Your task to perform on an android device: toggle location history Image 0: 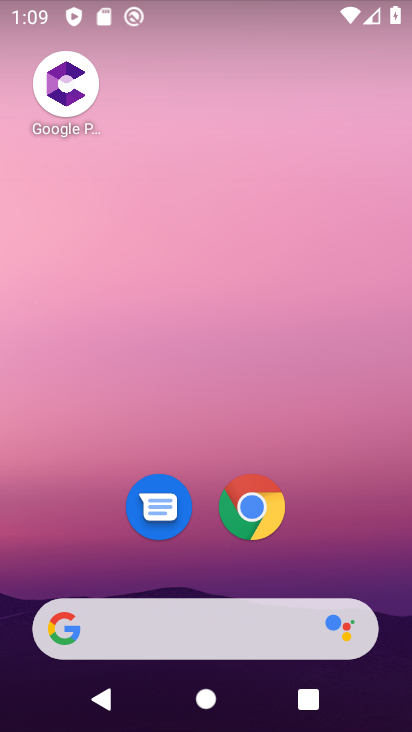
Step 0: drag from (398, 546) to (298, 66)
Your task to perform on an android device: toggle location history Image 1: 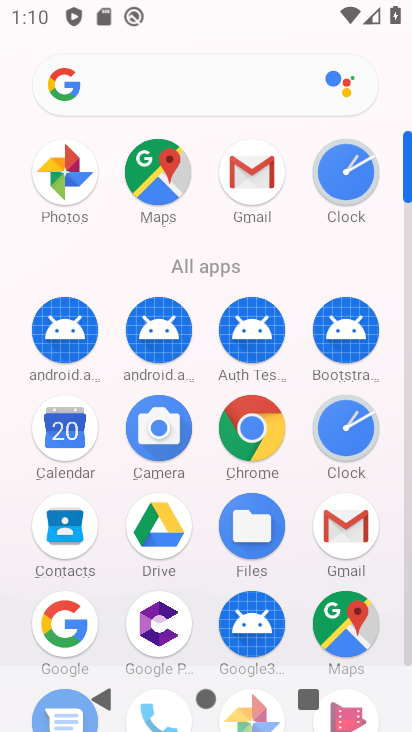
Step 1: click (166, 169)
Your task to perform on an android device: toggle location history Image 2: 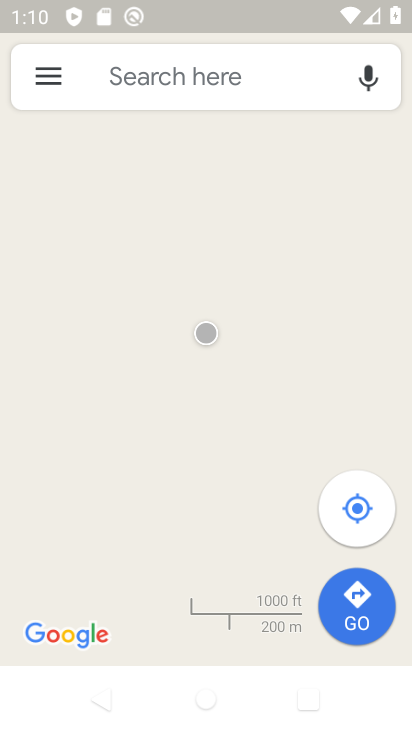
Step 2: click (45, 77)
Your task to perform on an android device: toggle location history Image 3: 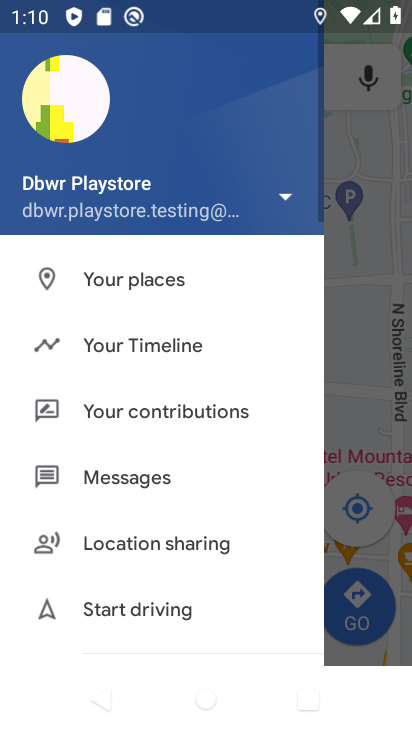
Step 3: click (139, 354)
Your task to perform on an android device: toggle location history Image 4: 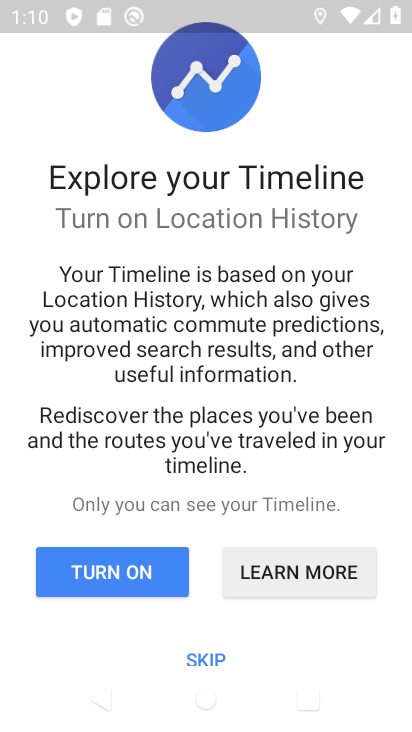
Step 4: click (195, 664)
Your task to perform on an android device: toggle location history Image 5: 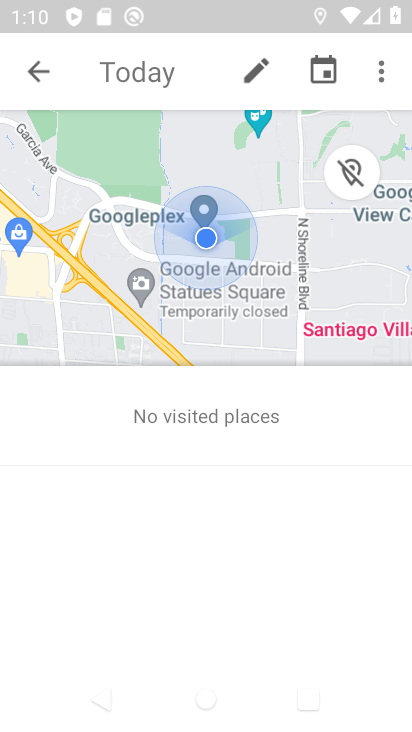
Step 5: click (367, 79)
Your task to perform on an android device: toggle location history Image 6: 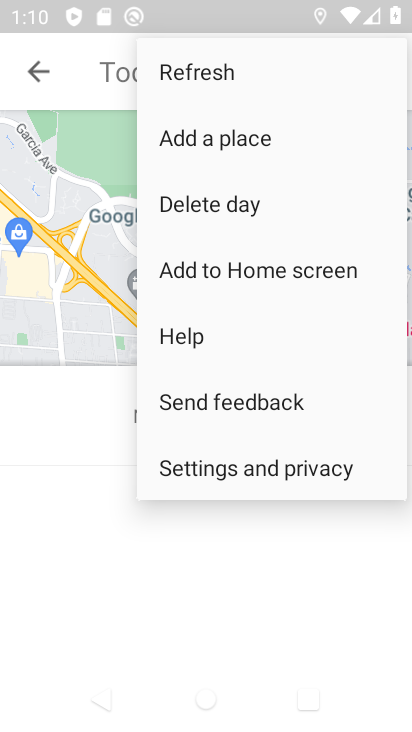
Step 6: click (329, 459)
Your task to perform on an android device: toggle location history Image 7: 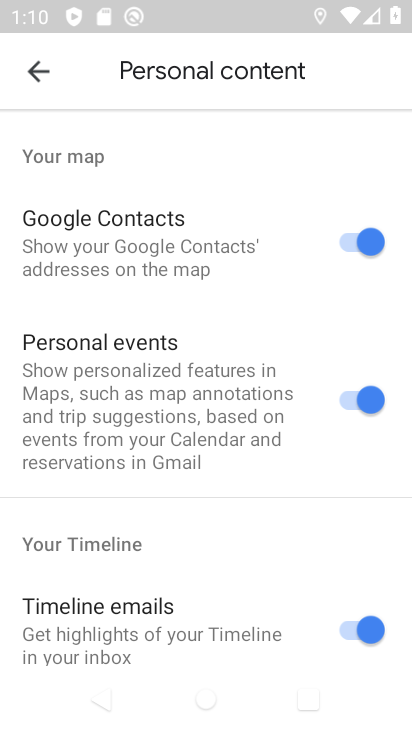
Step 7: drag from (233, 688) to (203, 205)
Your task to perform on an android device: toggle location history Image 8: 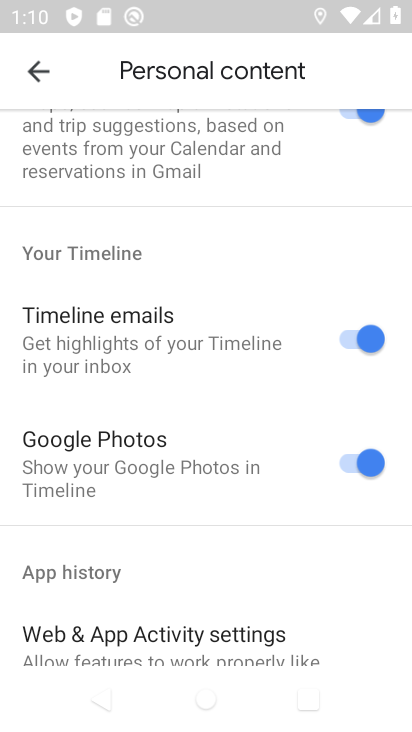
Step 8: drag from (232, 605) to (203, 125)
Your task to perform on an android device: toggle location history Image 9: 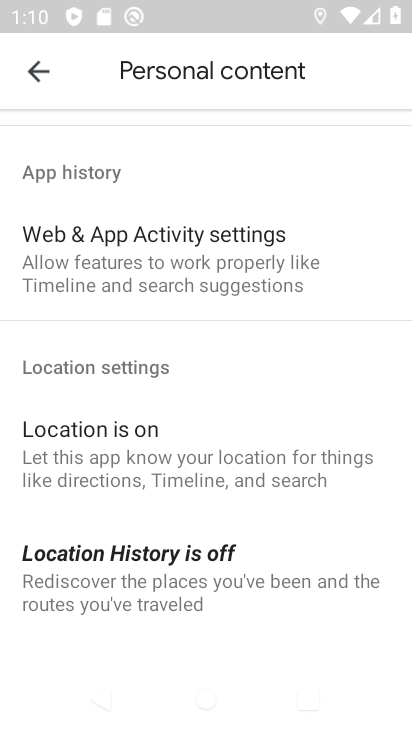
Step 9: click (279, 547)
Your task to perform on an android device: toggle location history Image 10: 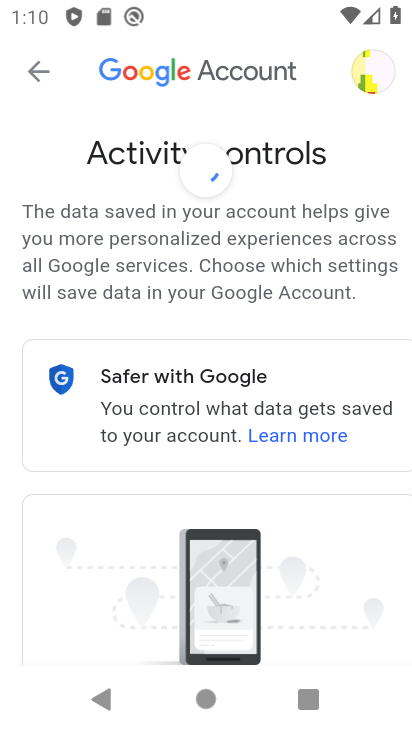
Step 10: drag from (316, 594) to (200, 157)
Your task to perform on an android device: toggle location history Image 11: 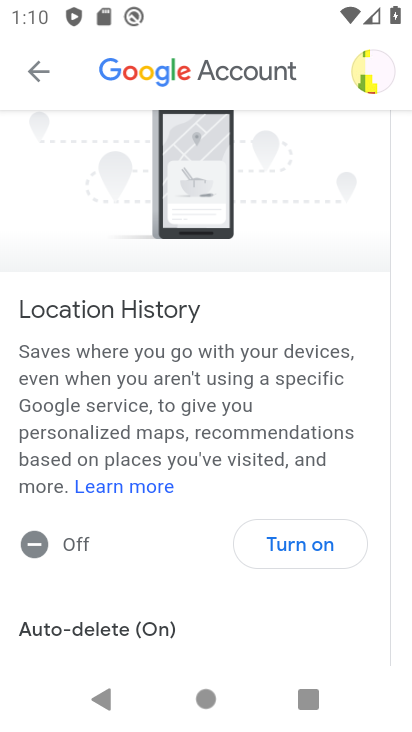
Step 11: click (287, 537)
Your task to perform on an android device: toggle location history Image 12: 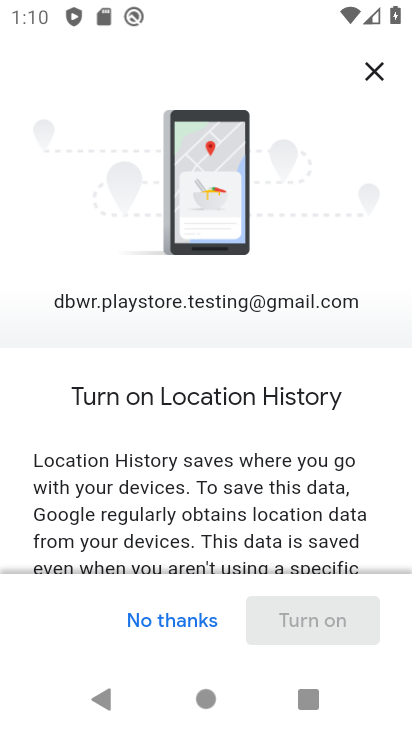
Step 12: drag from (287, 537) to (270, 424)
Your task to perform on an android device: toggle location history Image 13: 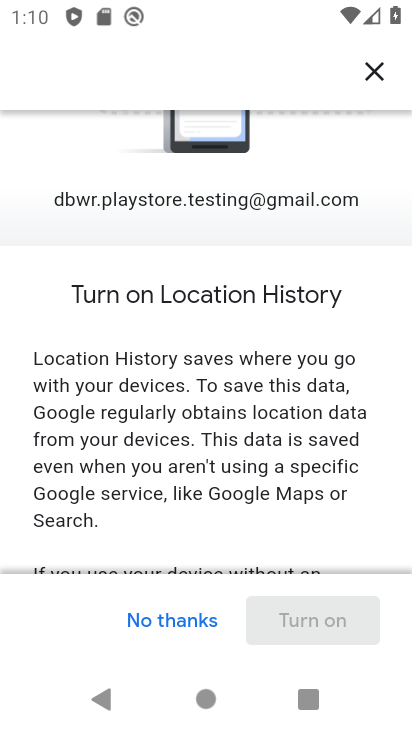
Step 13: drag from (301, 523) to (225, 142)
Your task to perform on an android device: toggle location history Image 14: 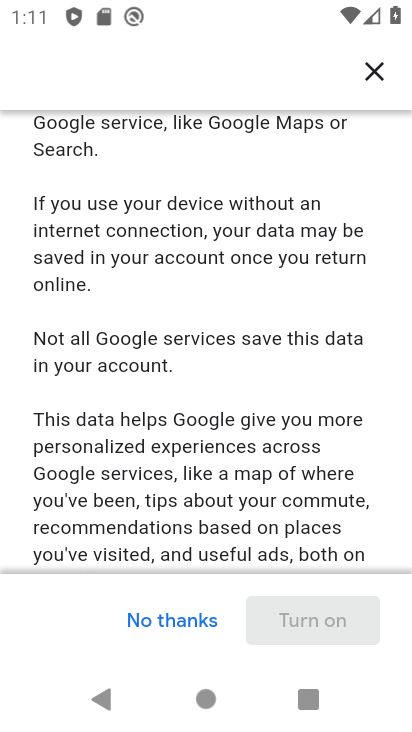
Step 14: drag from (317, 529) to (267, 336)
Your task to perform on an android device: toggle location history Image 15: 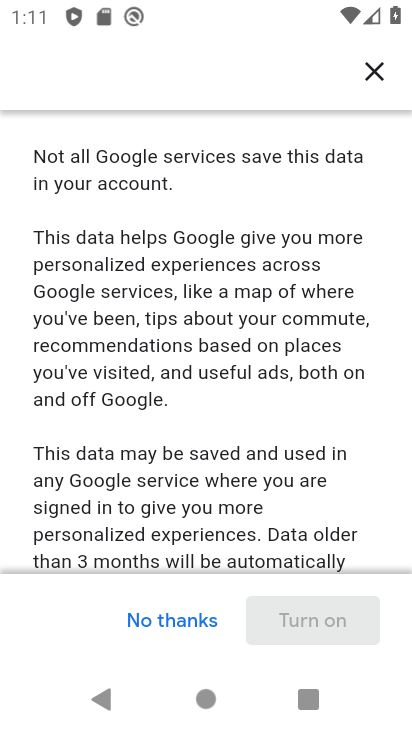
Step 15: drag from (307, 530) to (258, 177)
Your task to perform on an android device: toggle location history Image 16: 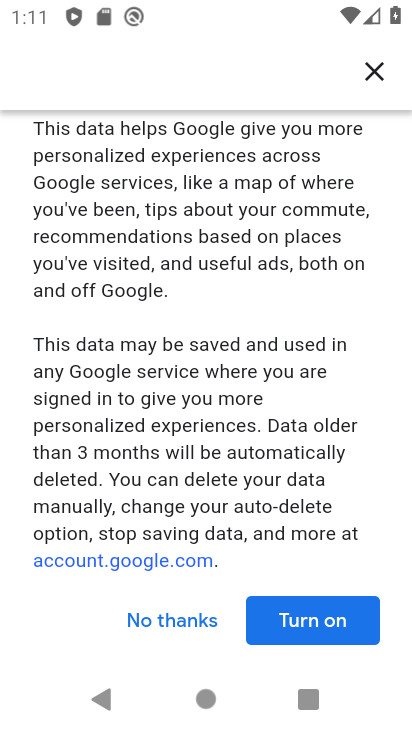
Step 16: click (323, 622)
Your task to perform on an android device: toggle location history Image 17: 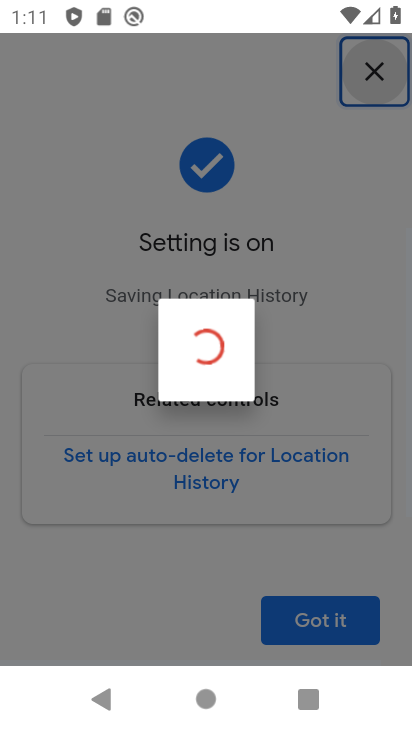
Step 17: click (323, 622)
Your task to perform on an android device: toggle location history Image 18: 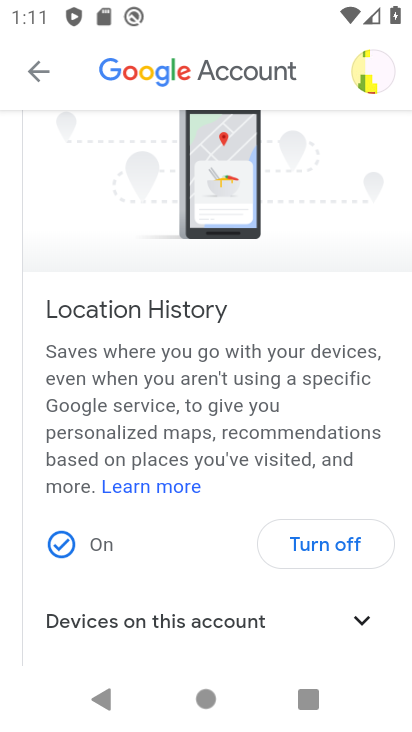
Step 18: click (323, 622)
Your task to perform on an android device: toggle location history Image 19: 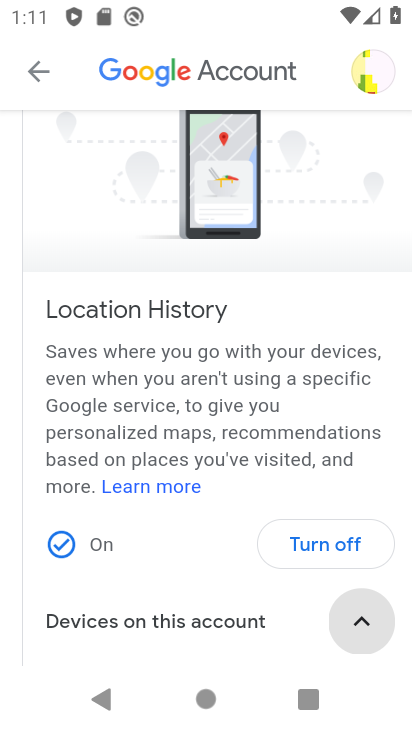
Step 19: task complete